Your task to perform on an android device: open app "PlayWell" Image 0: 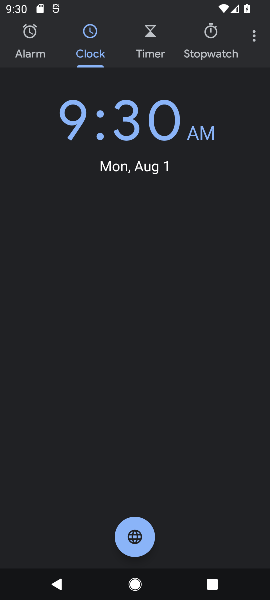
Step 0: press back button
Your task to perform on an android device: open app "PlayWell" Image 1: 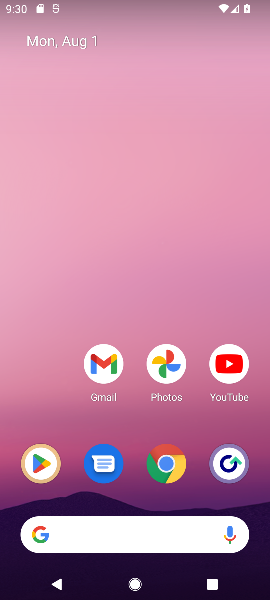
Step 1: click (31, 460)
Your task to perform on an android device: open app "PlayWell" Image 2: 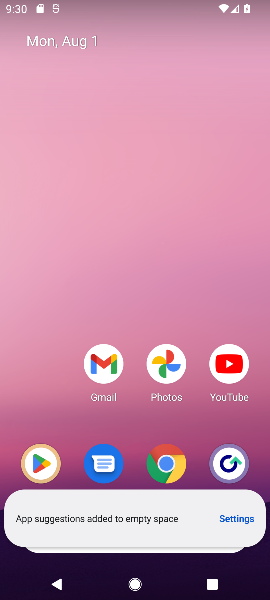
Step 2: click (39, 469)
Your task to perform on an android device: open app "PlayWell" Image 3: 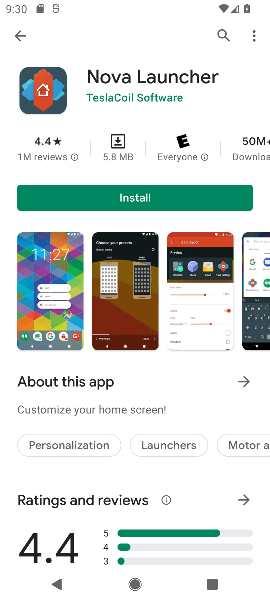
Step 3: click (229, 37)
Your task to perform on an android device: open app "PlayWell" Image 4: 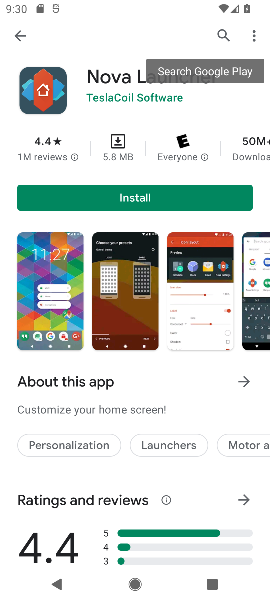
Step 4: click (223, 32)
Your task to perform on an android device: open app "PlayWell" Image 5: 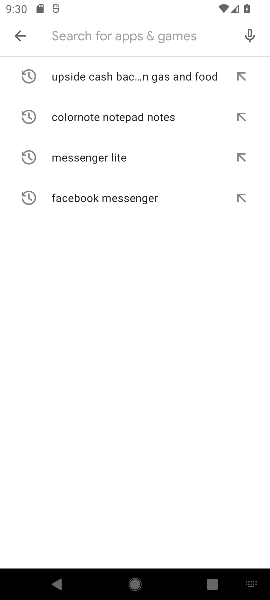
Step 5: click (105, 37)
Your task to perform on an android device: open app "PlayWell" Image 6: 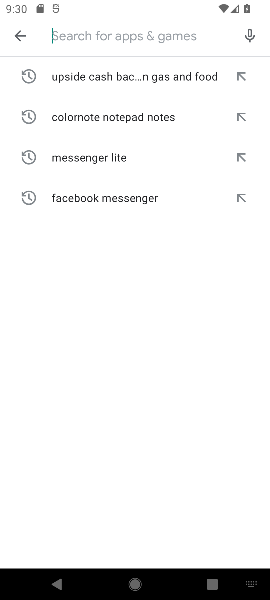
Step 6: type "playwell"
Your task to perform on an android device: open app "PlayWell" Image 7: 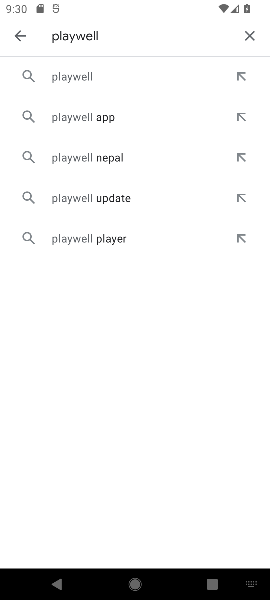
Step 7: click (82, 76)
Your task to perform on an android device: open app "PlayWell" Image 8: 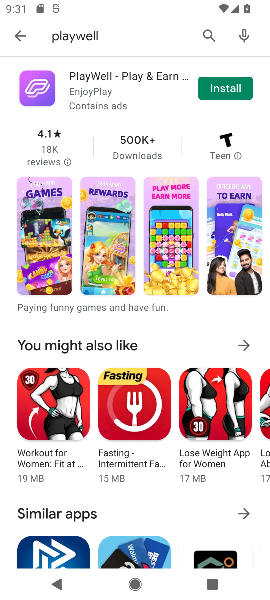
Step 8: task complete